Your task to perform on an android device: Open display settings Image 0: 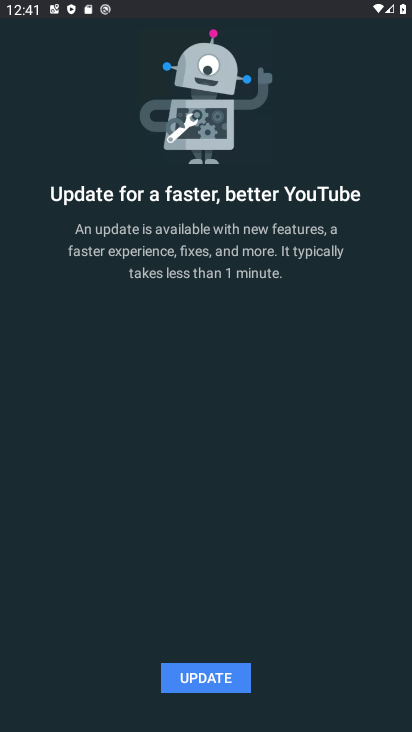
Step 0: press home button
Your task to perform on an android device: Open display settings Image 1: 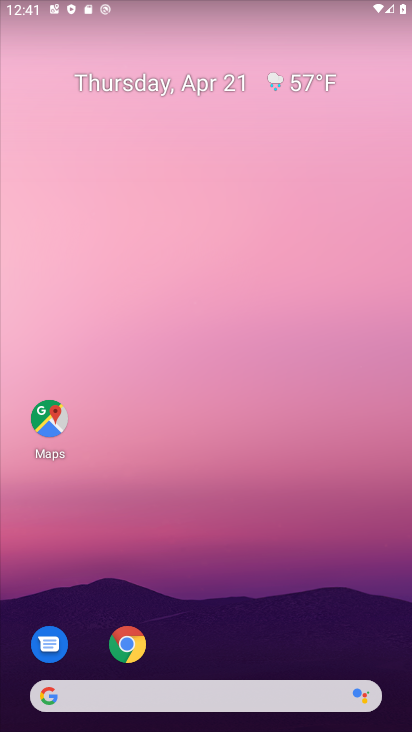
Step 1: drag from (198, 671) to (102, 22)
Your task to perform on an android device: Open display settings Image 2: 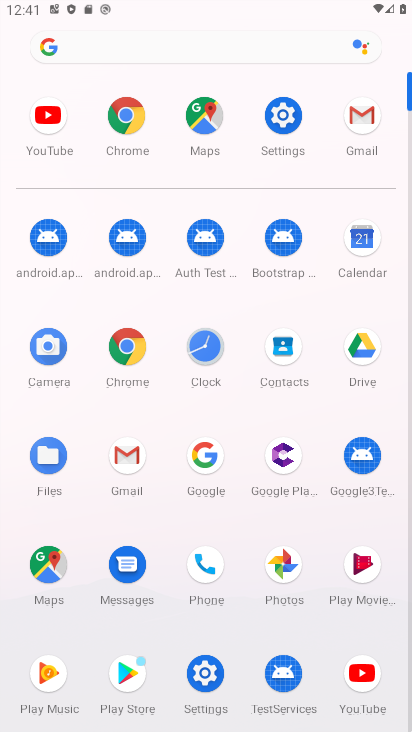
Step 2: click (286, 116)
Your task to perform on an android device: Open display settings Image 3: 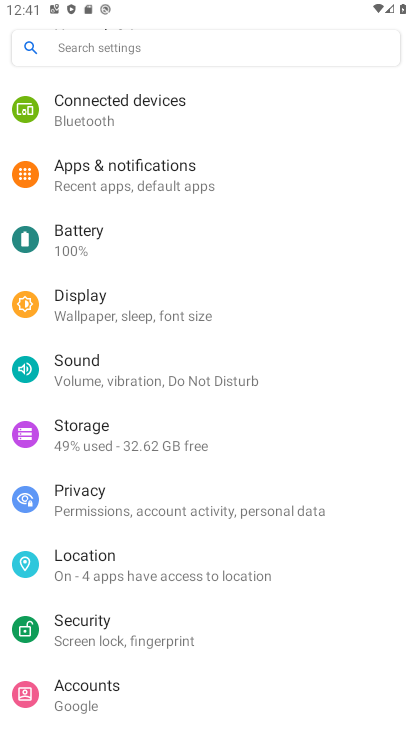
Step 3: click (79, 314)
Your task to perform on an android device: Open display settings Image 4: 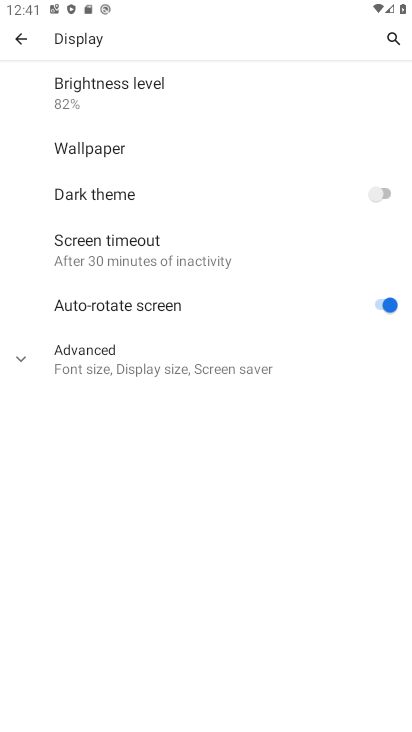
Step 4: click (118, 357)
Your task to perform on an android device: Open display settings Image 5: 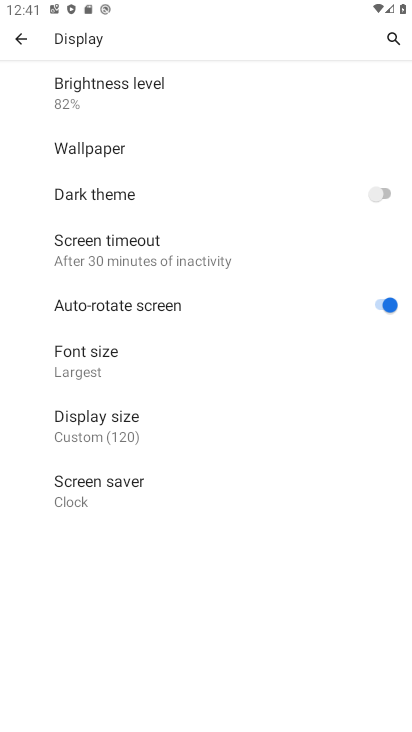
Step 5: task complete